Your task to perform on an android device: Open CNN.com Image 0: 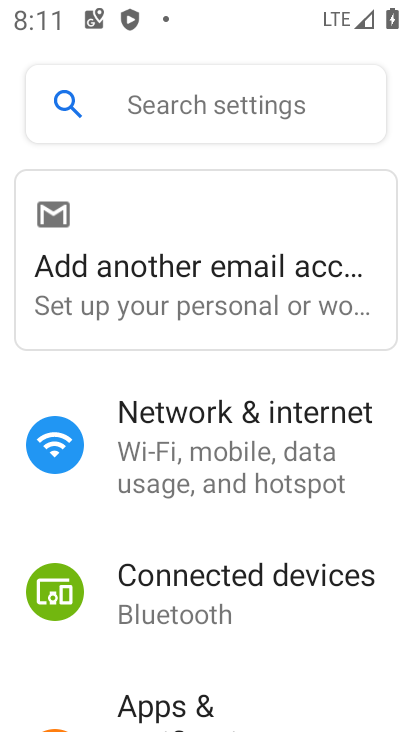
Step 0: press home button
Your task to perform on an android device: Open CNN.com Image 1: 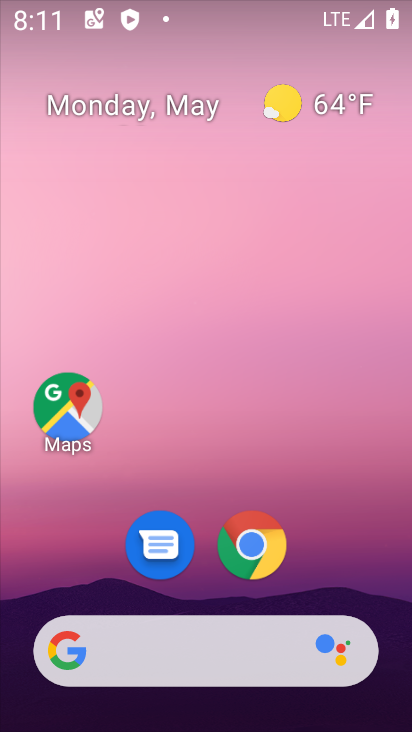
Step 1: click (254, 564)
Your task to perform on an android device: Open CNN.com Image 2: 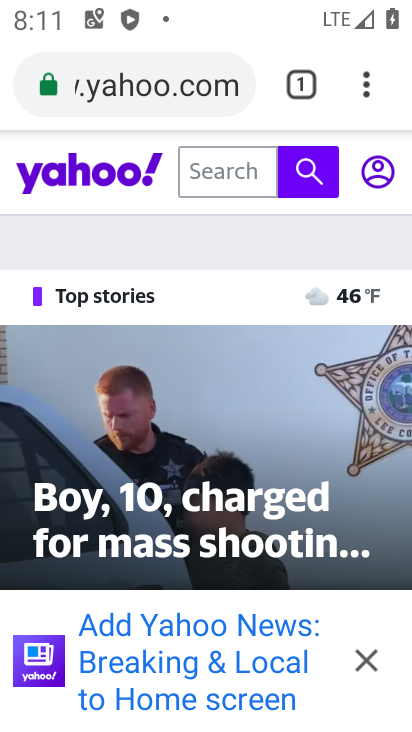
Step 2: click (172, 86)
Your task to perform on an android device: Open CNN.com Image 3: 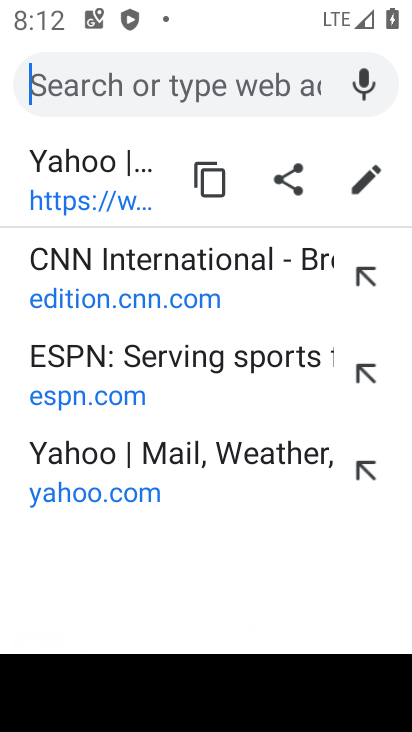
Step 3: type "cnn.com"
Your task to perform on an android device: Open CNN.com Image 4: 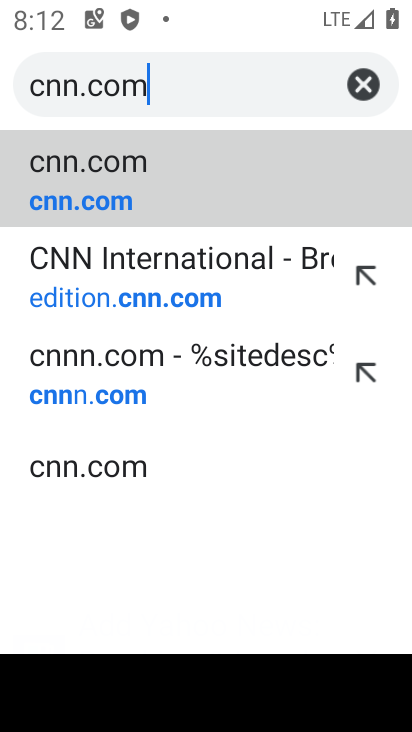
Step 4: click (218, 180)
Your task to perform on an android device: Open CNN.com Image 5: 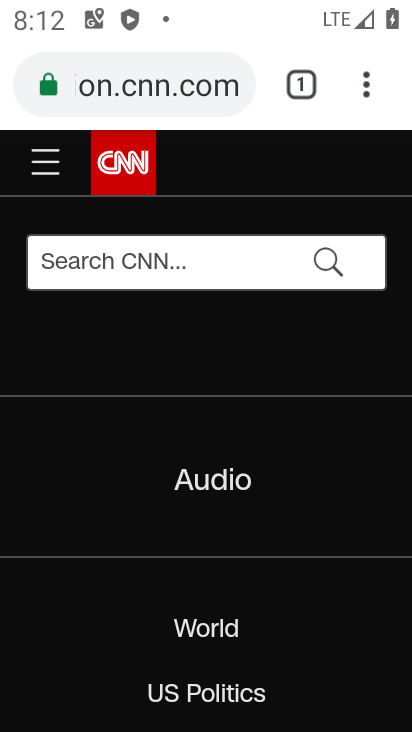
Step 5: task complete